Your task to perform on an android device: Search for Mexican restaurants on Maps Image 0: 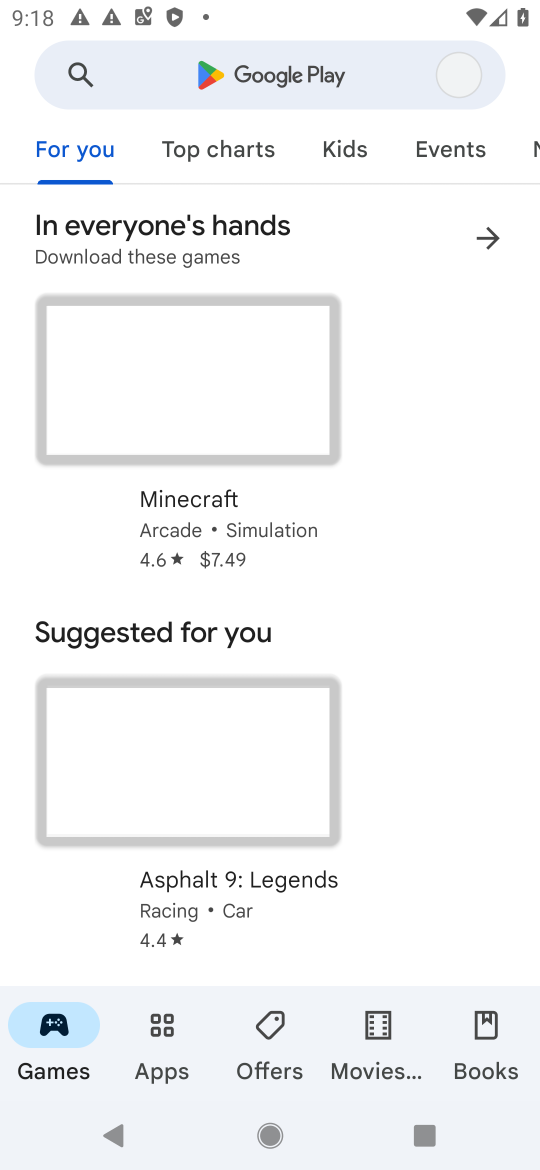
Step 0: press home button
Your task to perform on an android device: Search for Mexican restaurants on Maps Image 1: 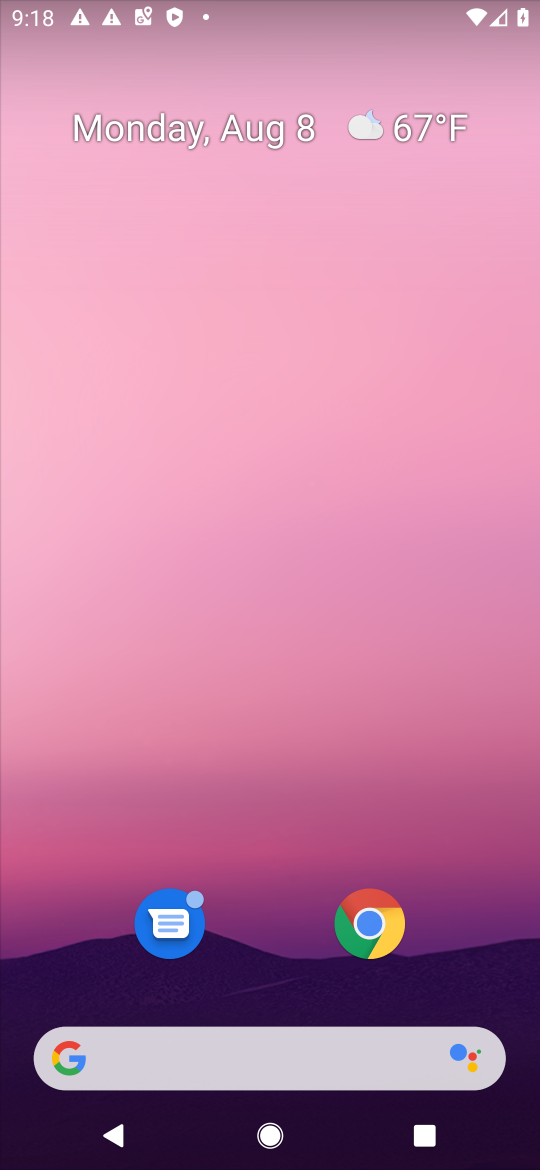
Step 1: drag from (45, 1140) to (316, 647)
Your task to perform on an android device: Search for Mexican restaurants on Maps Image 2: 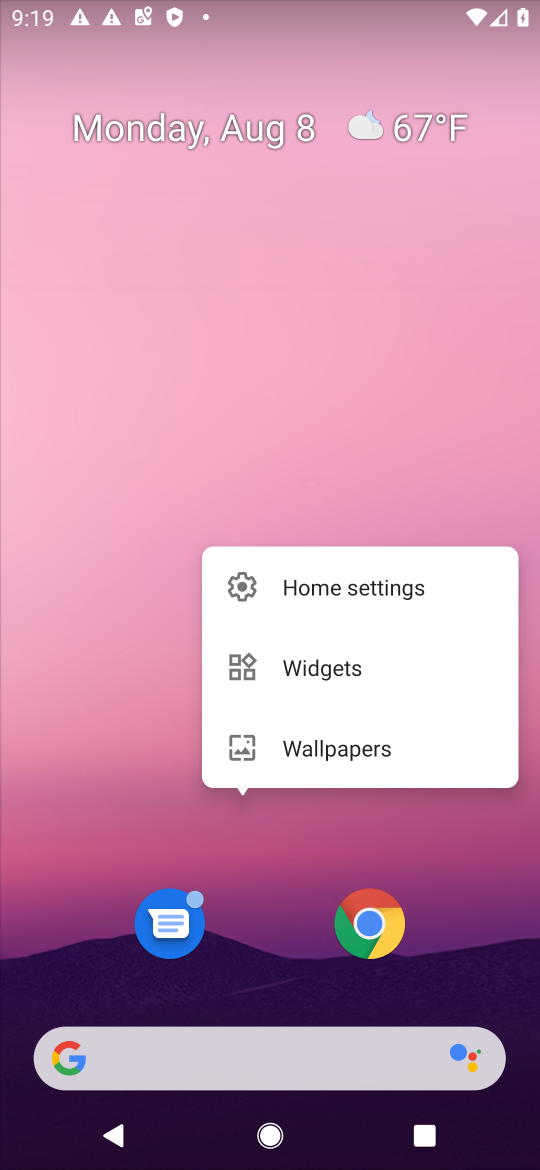
Step 2: click (51, 1107)
Your task to perform on an android device: Search for Mexican restaurants on Maps Image 3: 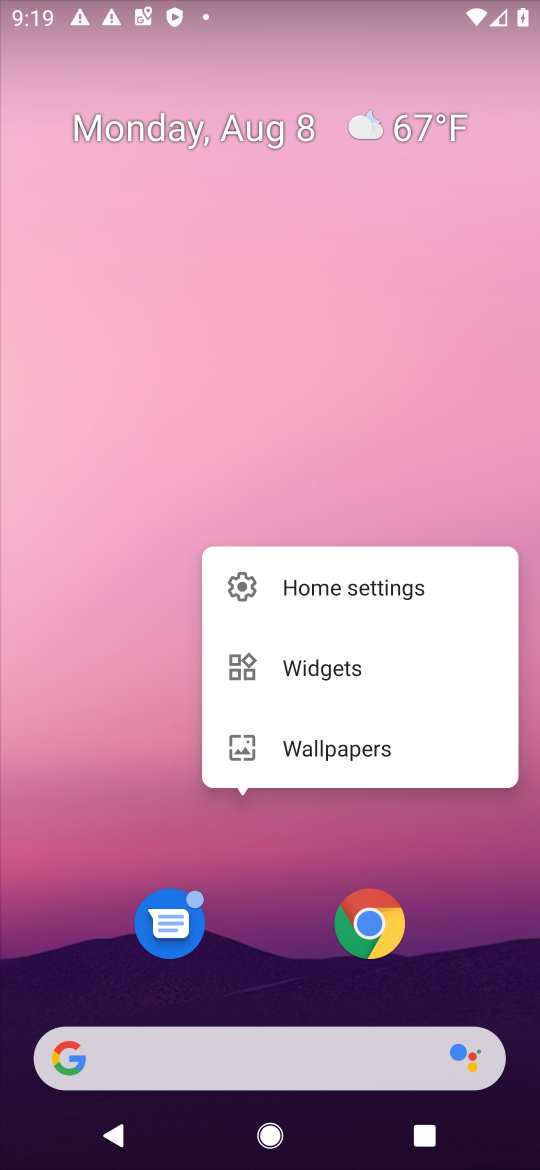
Step 3: task complete